Your task to perform on an android device: Search for "usb-c to usb-a" on costco, select the first entry, add it to the cart, then select checkout. Image 0: 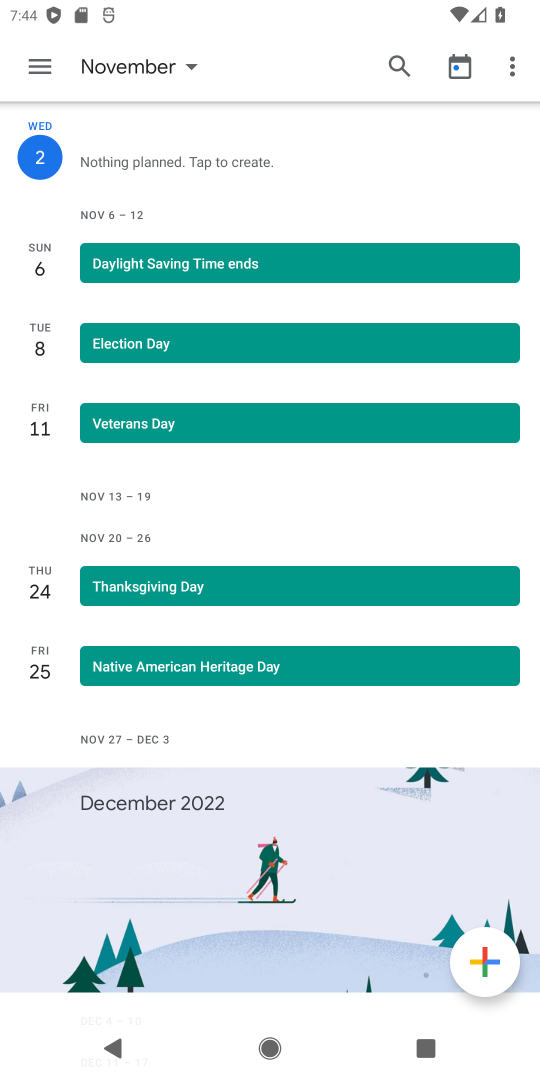
Step 0: press home button
Your task to perform on an android device: Search for "usb-c to usb-a" on costco, select the first entry, add it to the cart, then select checkout. Image 1: 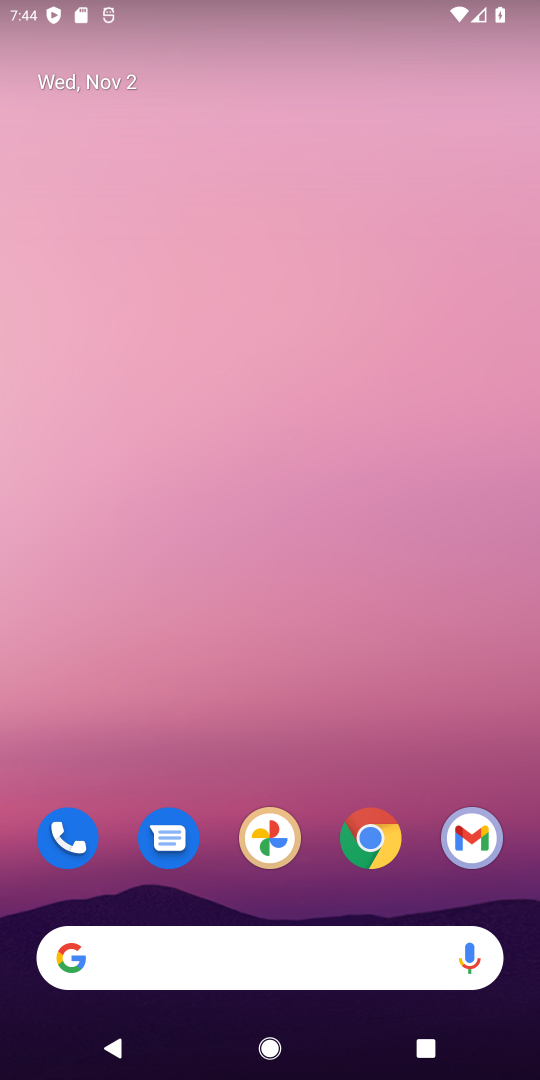
Step 1: click (391, 855)
Your task to perform on an android device: Search for "usb-c to usb-a" on costco, select the first entry, add it to the cart, then select checkout. Image 2: 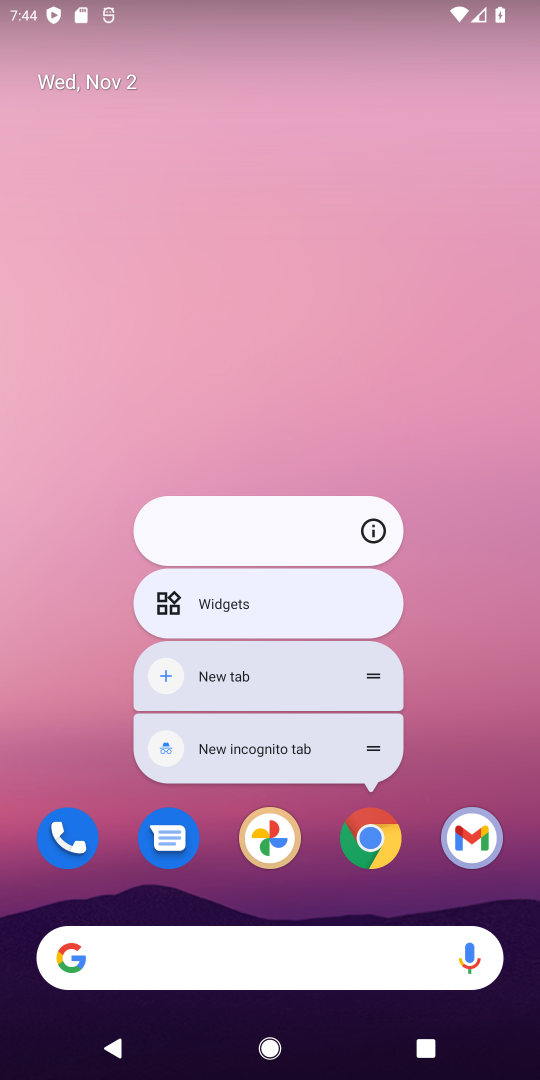
Step 2: click (370, 846)
Your task to perform on an android device: Search for "usb-c to usb-a" on costco, select the first entry, add it to the cart, then select checkout. Image 3: 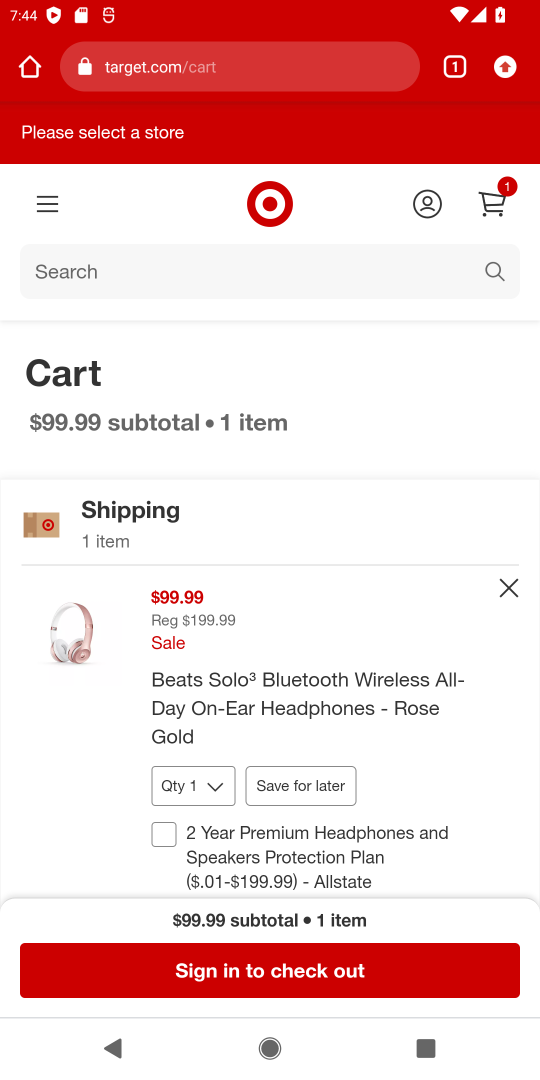
Step 3: click (285, 59)
Your task to perform on an android device: Search for "usb-c to usb-a" on costco, select the first entry, add it to the cart, then select checkout. Image 4: 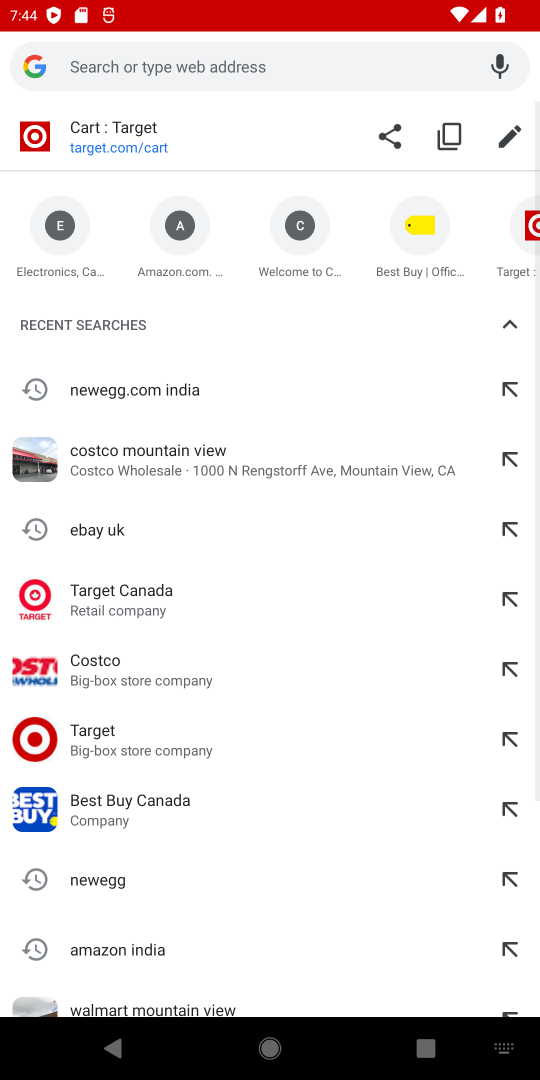
Step 4: type "costco"
Your task to perform on an android device: Search for "usb-c to usb-a" on costco, select the first entry, add it to the cart, then select checkout. Image 5: 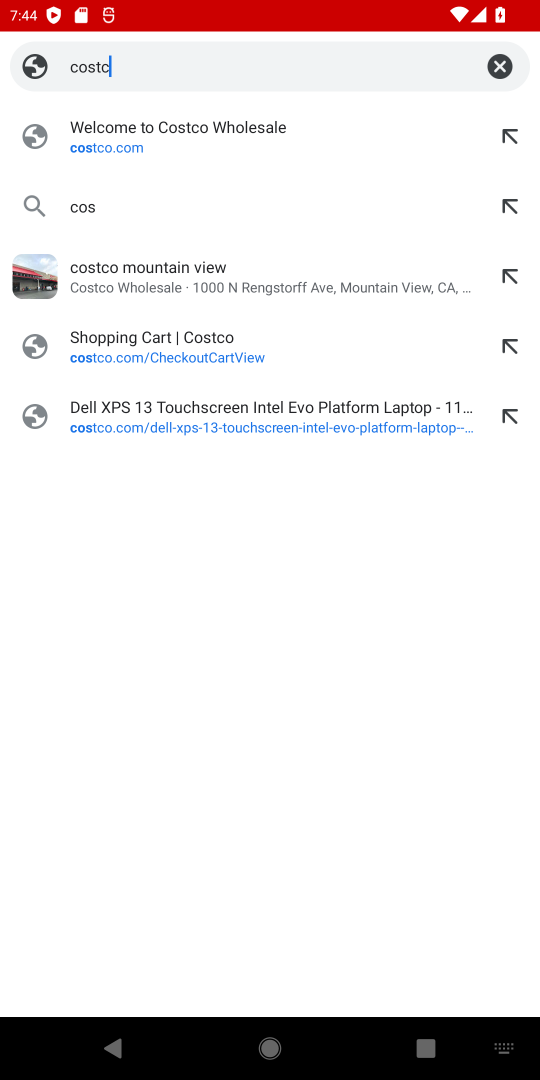
Step 5: type ""
Your task to perform on an android device: Search for "usb-c to usb-a" on costco, select the first entry, add it to the cart, then select checkout. Image 6: 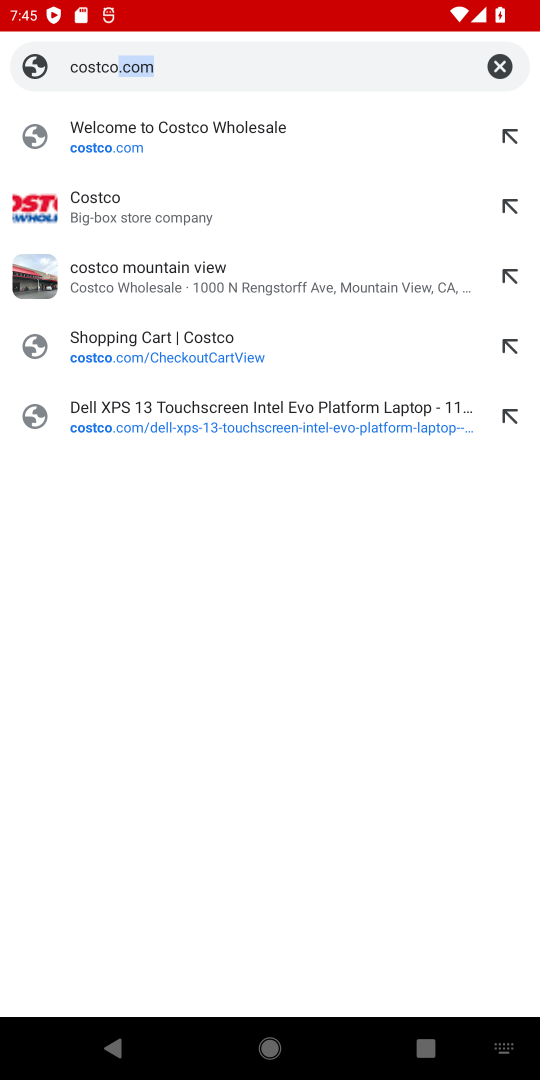
Step 6: press enter
Your task to perform on an android device: Search for "usb-c to usb-a" on costco, select the first entry, add it to the cart, then select checkout. Image 7: 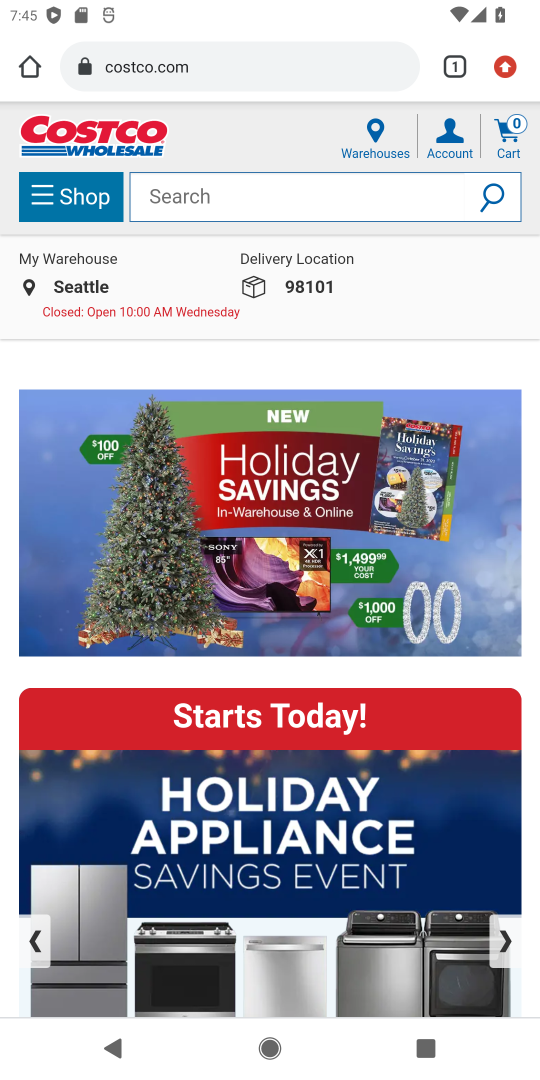
Step 7: click (209, 190)
Your task to perform on an android device: Search for "usb-c to usb-a" on costco, select the first entry, add it to the cart, then select checkout. Image 8: 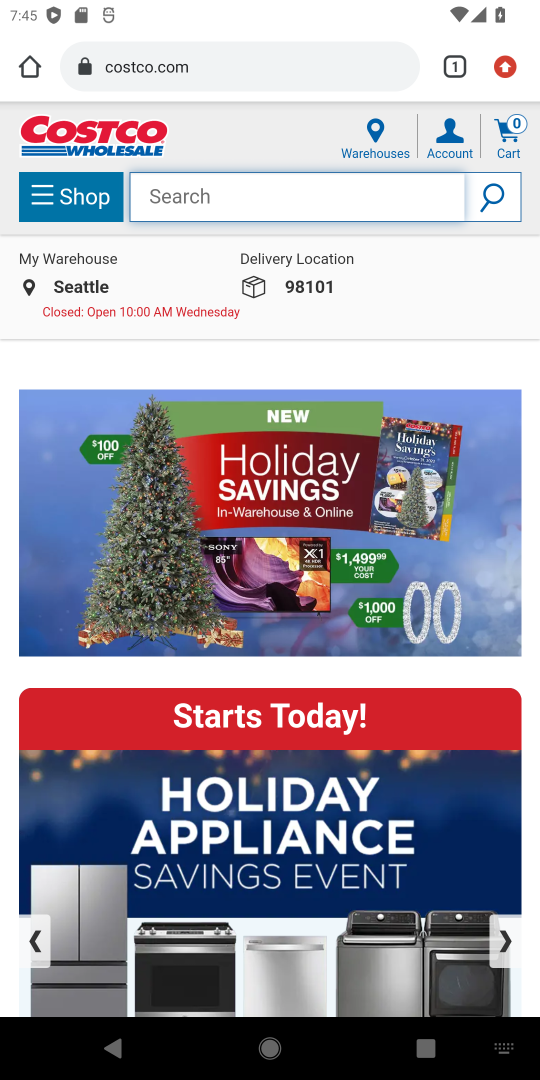
Step 8: type "usb-c to usb-a"
Your task to perform on an android device: Search for "usb-c to usb-a" on costco, select the first entry, add it to the cart, then select checkout. Image 9: 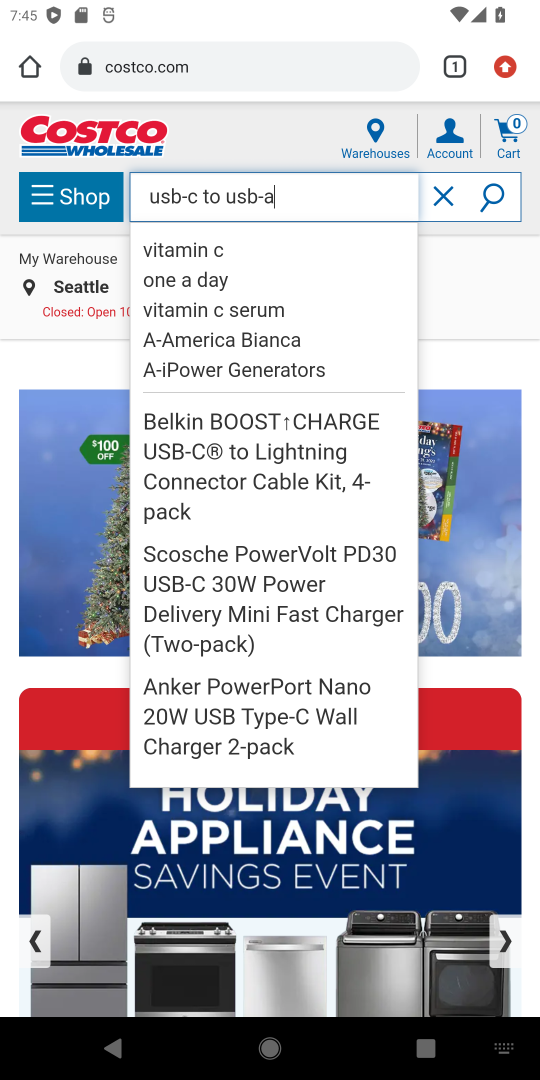
Step 9: press enter
Your task to perform on an android device: Search for "usb-c to usb-a" on costco, select the first entry, add it to the cart, then select checkout. Image 10: 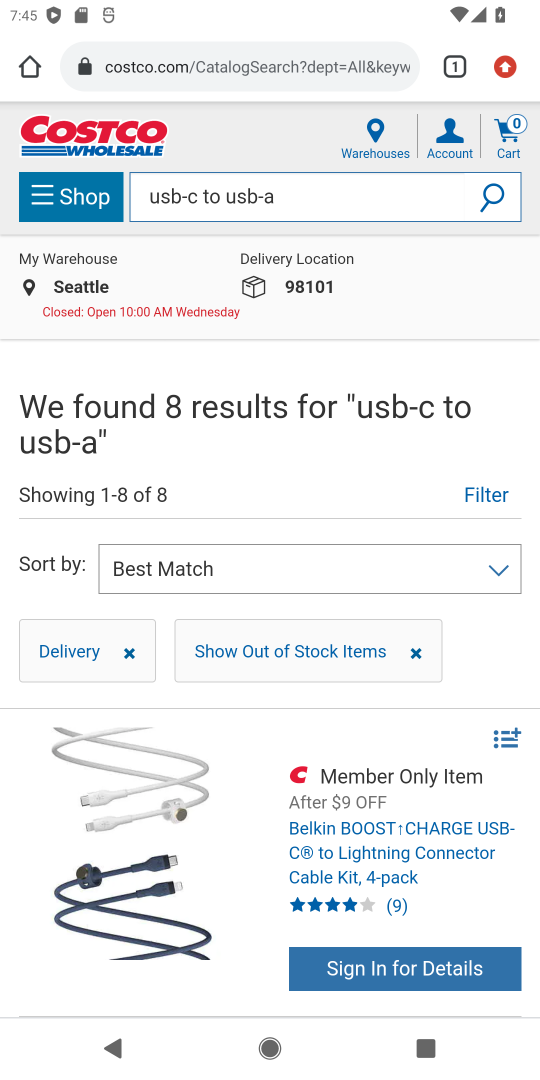
Step 10: click (423, 843)
Your task to perform on an android device: Search for "usb-c to usb-a" on costco, select the first entry, add it to the cart, then select checkout. Image 11: 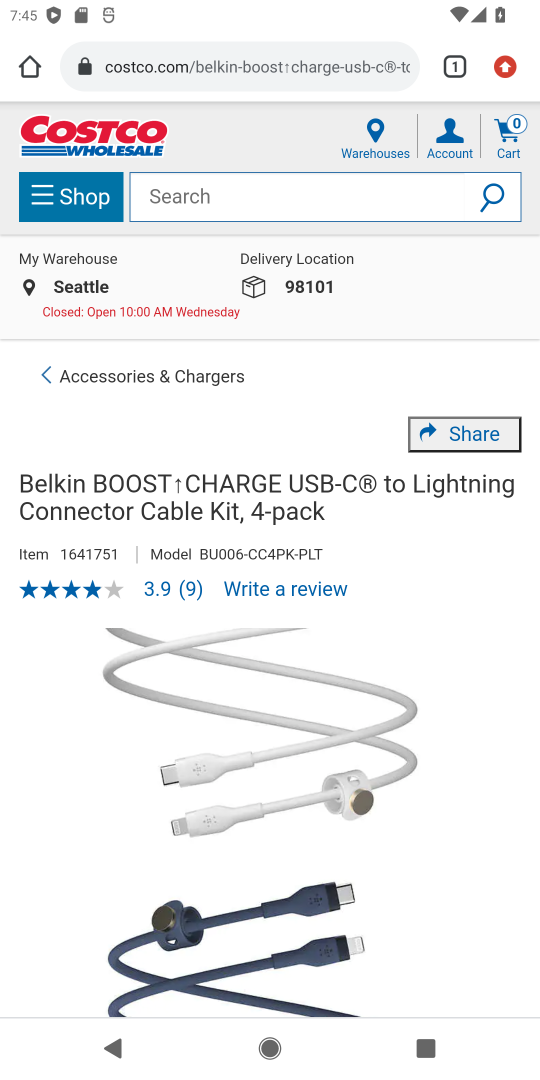
Step 11: drag from (375, 767) to (434, 168)
Your task to perform on an android device: Search for "usb-c to usb-a" on costco, select the first entry, add it to the cart, then select checkout. Image 12: 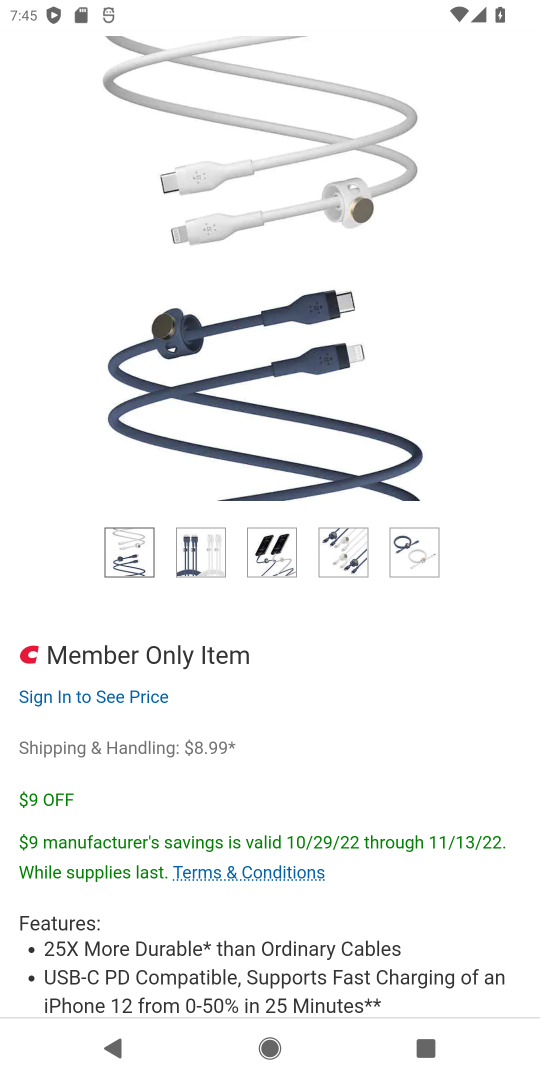
Step 12: drag from (417, 791) to (449, 337)
Your task to perform on an android device: Search for "usb-c to usb-a" on costco, select the first entry, add it to the cart, then select checkout. Image 13: 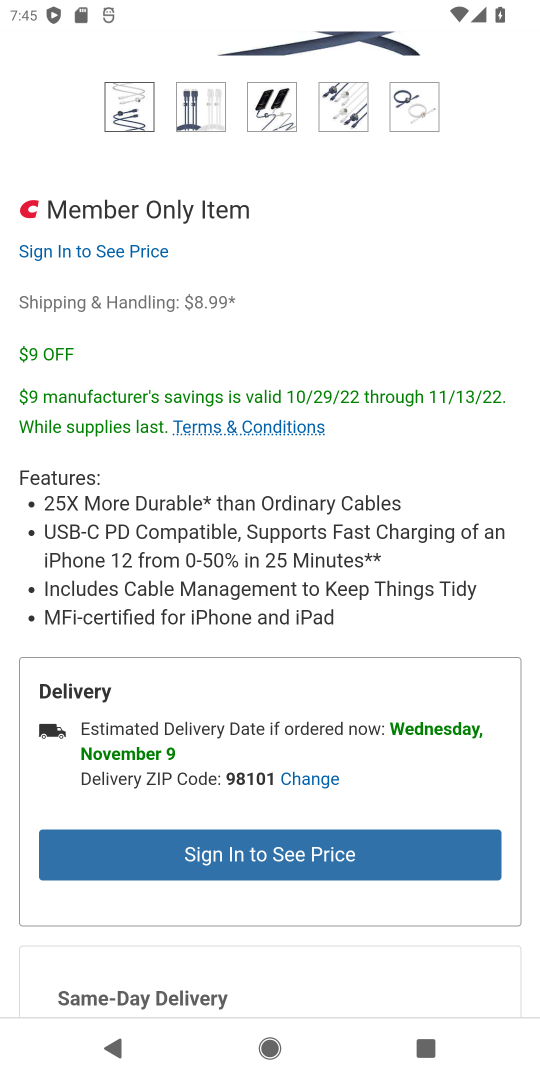
Step 13: click (347, 866)
Your task to perform on an android device: Search for "usb-c to usb-a" on costco, select the first entry, add it to the cart, then select checkout. Image 14: 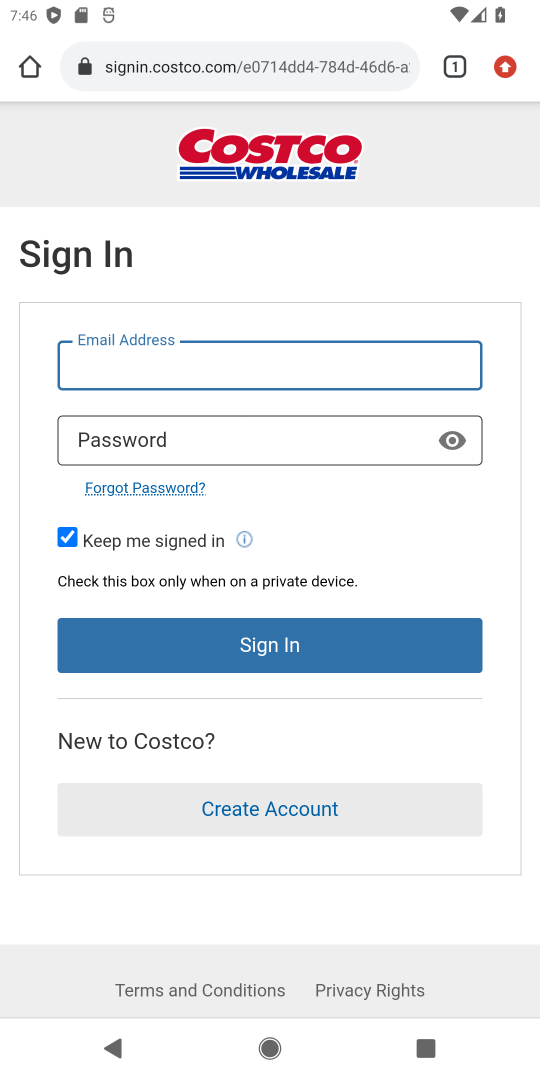
Step 14: task complete